Your task to perform on an android device: See recent photos Image 0: 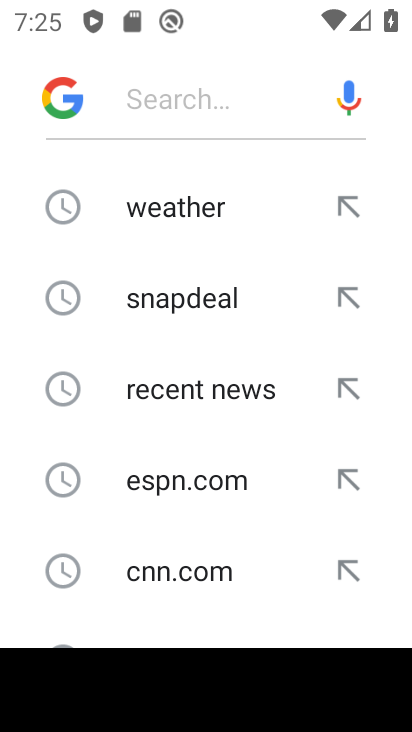
Step 0: press home button
Your task to perform on an android device: See recent photos Image 1: 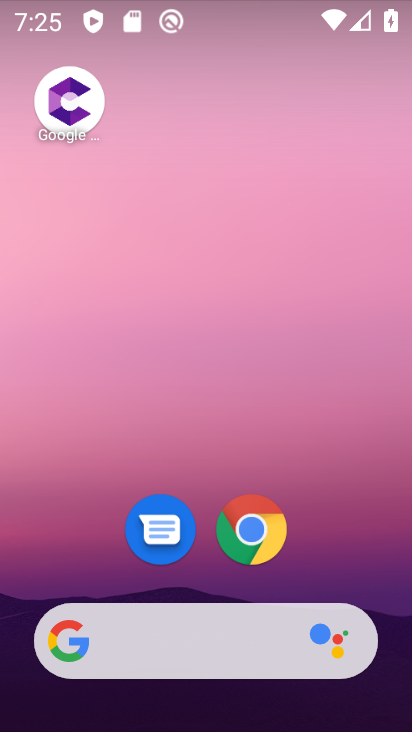
Step 1: drag from (153, 620) to (321, 68)
Your task to perform on an android device: See recent photos Image 2: 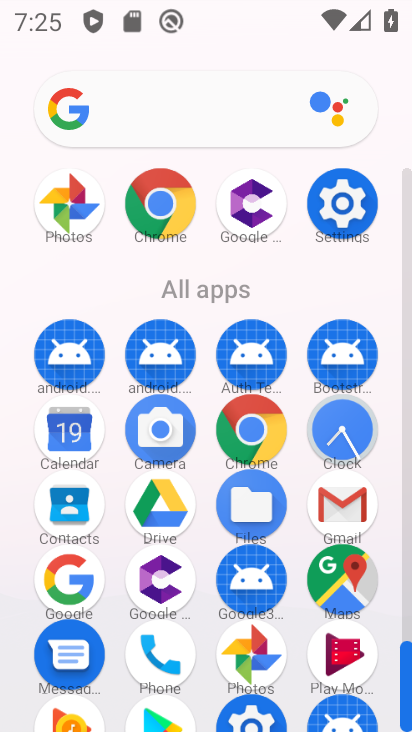
Step 2: click (73, 213)
Your task to perform on an android device: See recent photos Image 3: 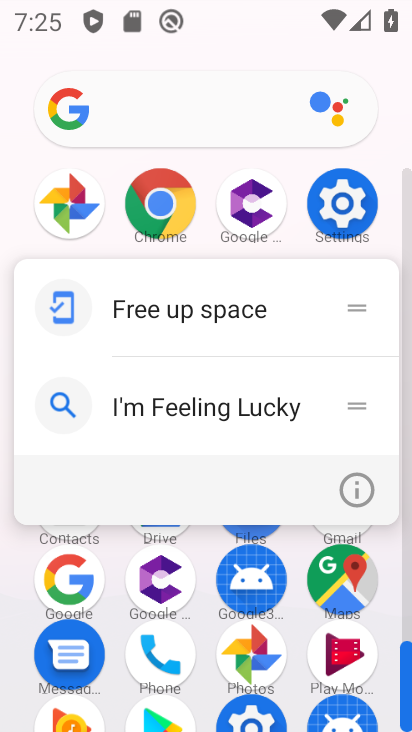
Step 3: click (72, 207)
Your task to perform on an android device: See recent photos Image 4: 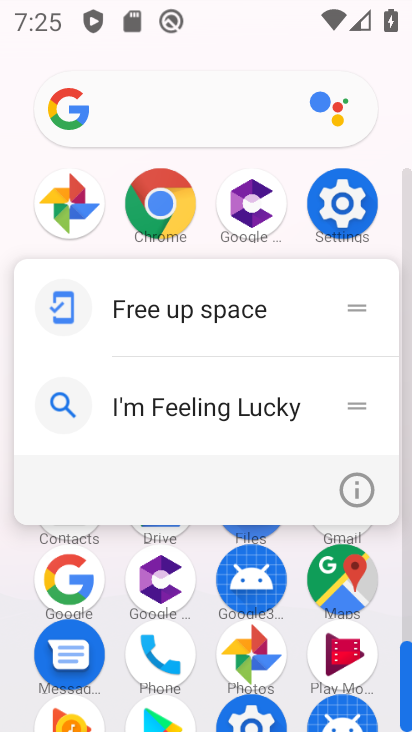
Step 4: click (67, 205)
Your task to perform on an android device: See recent photos Image 5: 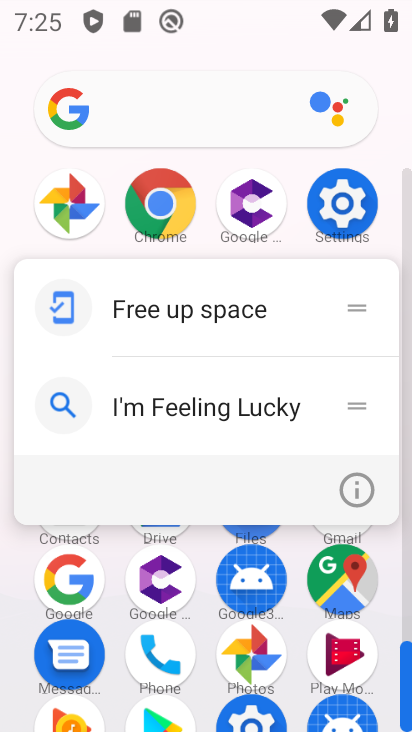
Step 5: click (76, 211)
Your task to perform on an android device: See recent photos Image 6: 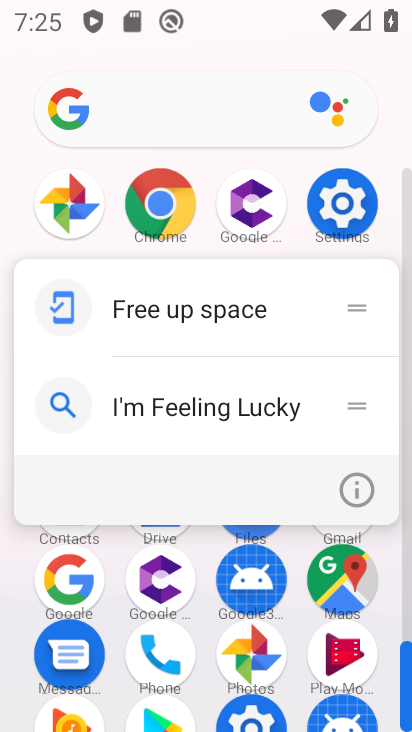
Step 6: click (68, 202)
Your task to perform on an android device: See recent photos Image 7: 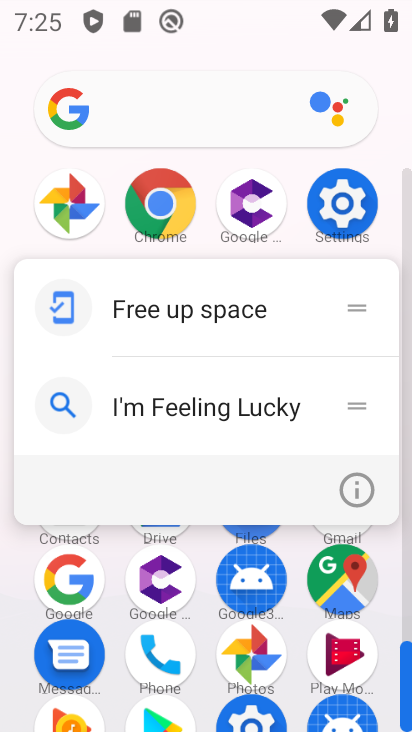
Step 7: click (72, 212)
Your task to perform on an android device: See recent photos Image 8: 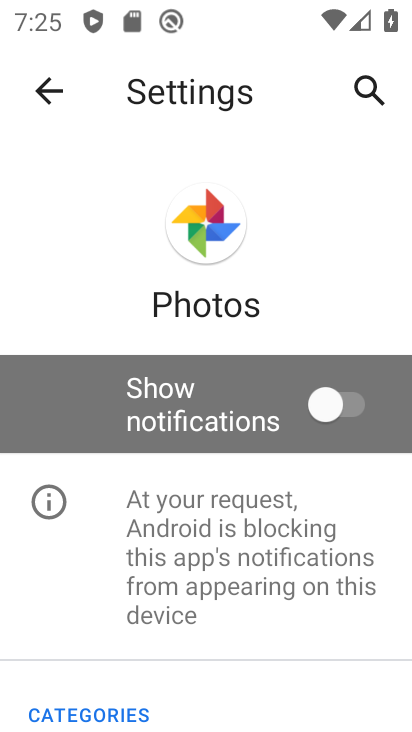
Step 8: click (56, 86)
Your task to perform on an android device: See recent photos Image 9: 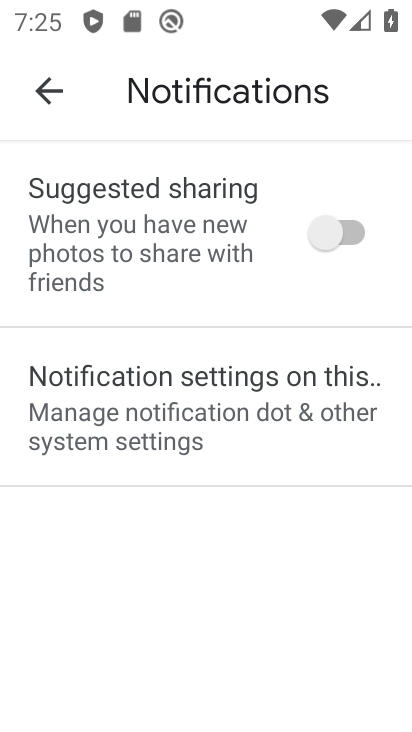
Step 9: click (56, 86)
Your task to perform on an android device: See recent photos Image 10: 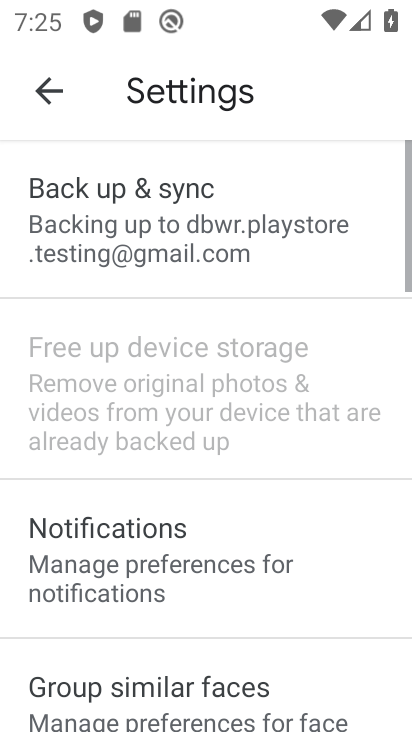
Step 10: click (49, 85)
Your task to perform on an android device: See recent photos Image 11: 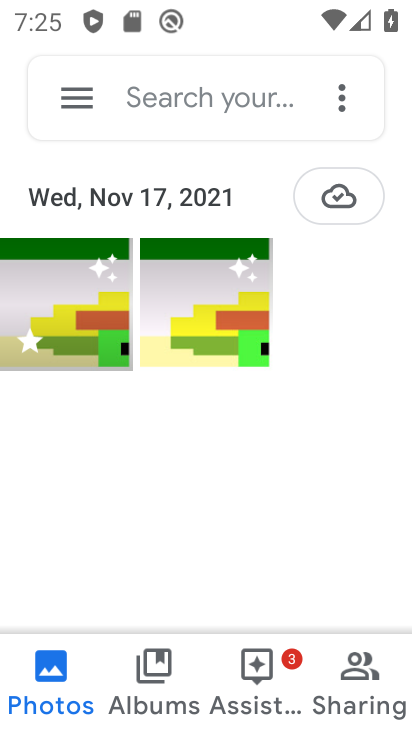
Step 11: click (154, 664)
Your task to perform on an android device: See recent photos Image 12: 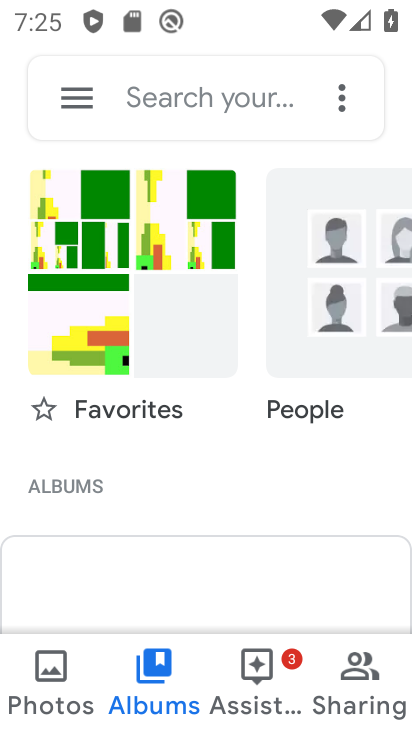
Step 12: task complete